Your task to perform on an android device: Show me popular games on the Play Store Image 0: 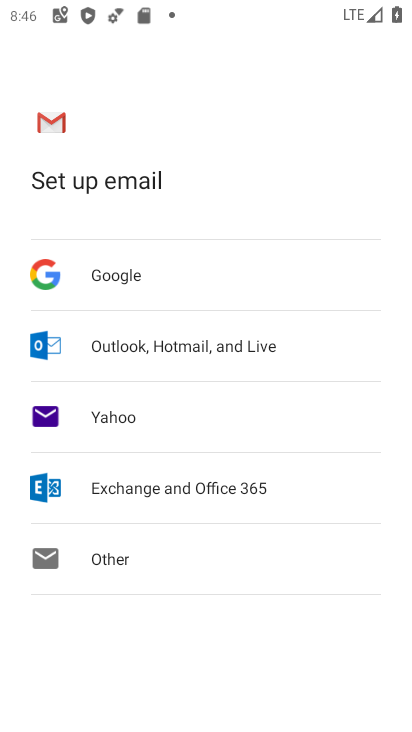
Step 0: press home button
Your task to perform on an android device: Show me popular games on the Play Store Image 1: 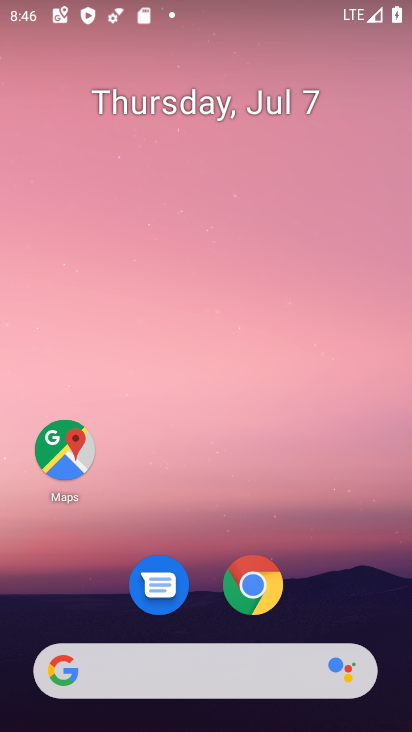
Step 1: drag from (276, 495) to (263, 53)
Your task to perform on an android device: Show me popular games on the Play Store Image 2: 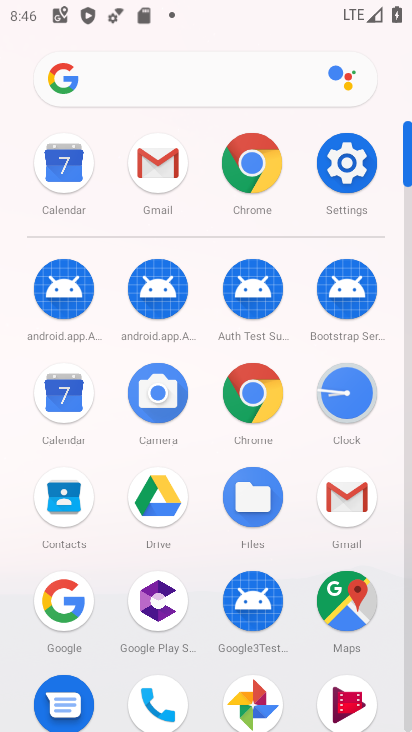
Step 2: drag from (207, 609) to (216, 350)
Your task to perform on an android device: Show me popular games on the Play Store Image 3: 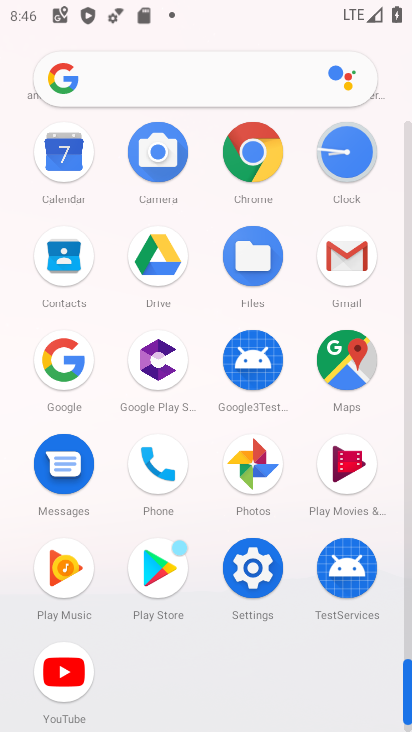
Step 3: click (155, 567)
Your task to perform on an android device: Show me popular games on the Play Store Image 4: 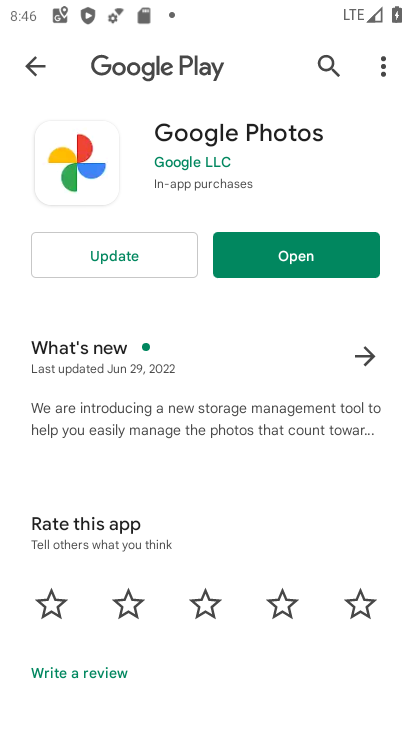
Step 4: click (34, 62)
Your task to perform on an android device: Show me popular games on the Play Store Image 5: 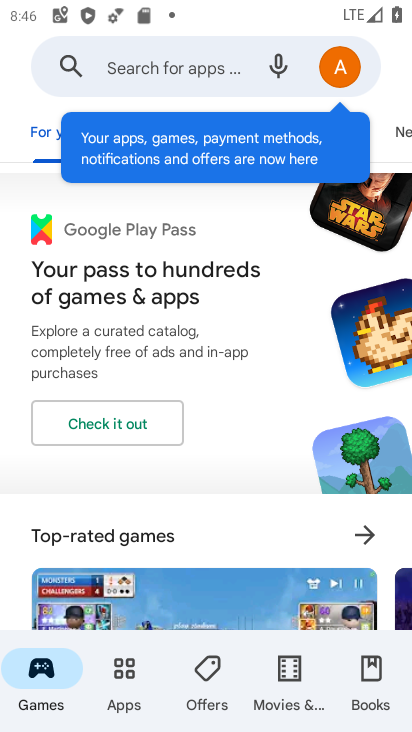
Step 5: click (308, 155)
Your task to perform on an android device: Show me popular games on the Play Store Image 6: 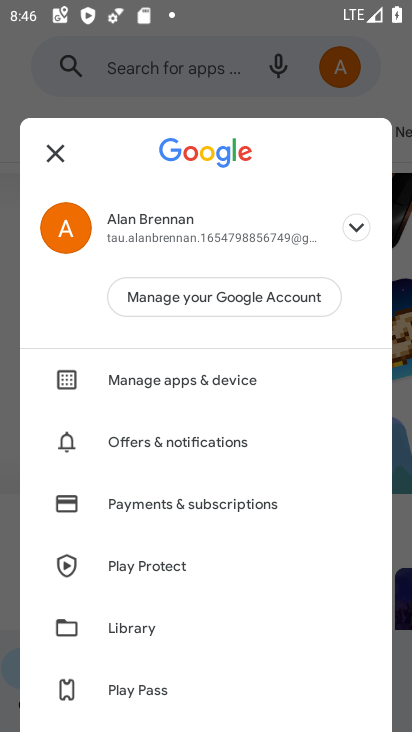
Step 6: click (54, 147)
Your task to perform on an android device: Show me popular games on the Play Store Image 7: 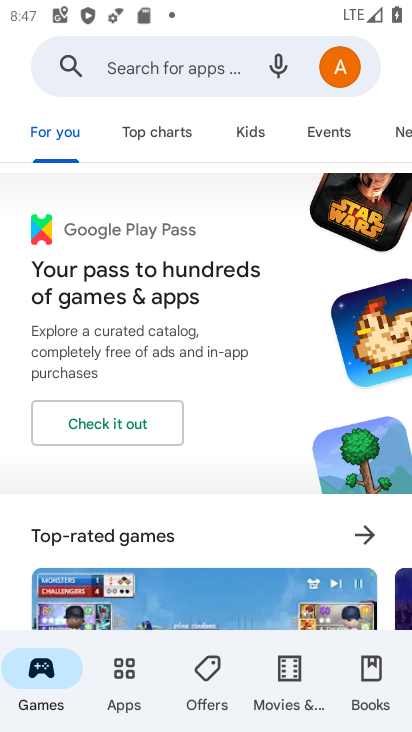
Step 7: drag from (263, 511) to (291, 88)
Your task to perform on an android device: Show me popular games on the Play Store Image 8: 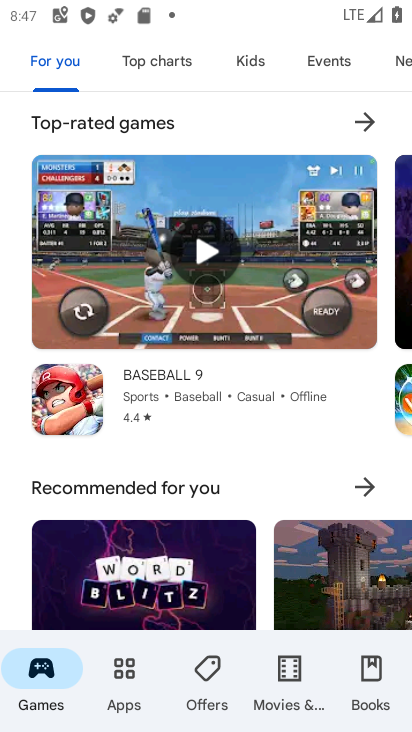
Step 8: drag from (280, 419) to (289, 112)
Your task to perform on an android device: Show me popular games on the Play Store Image 9: 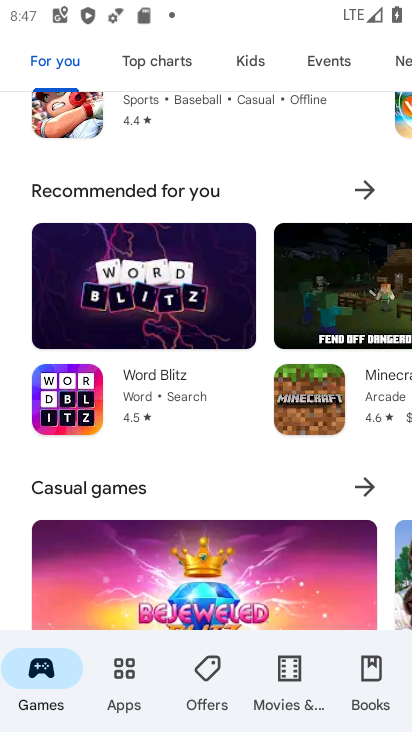
Step 9: drag from (300, 564) to (318, 202)
Your task to perform on an android device: Show me popular games on the Play Store Image 10: 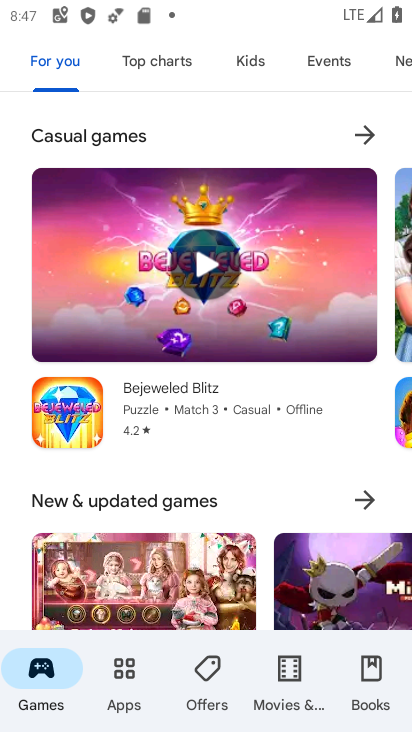
Step 10: drag from (288, 496) to (287, 184)
Your task to perform on an android device: Show me popular games on the Play Store Image 11: 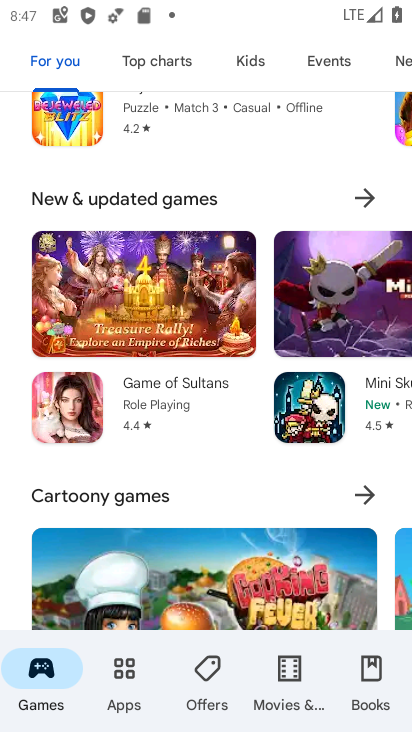
Step 11: drag from (283, 573) to (296, 197)
Your task to perform on an android device: Show me popular games on the Play Store Image 12: 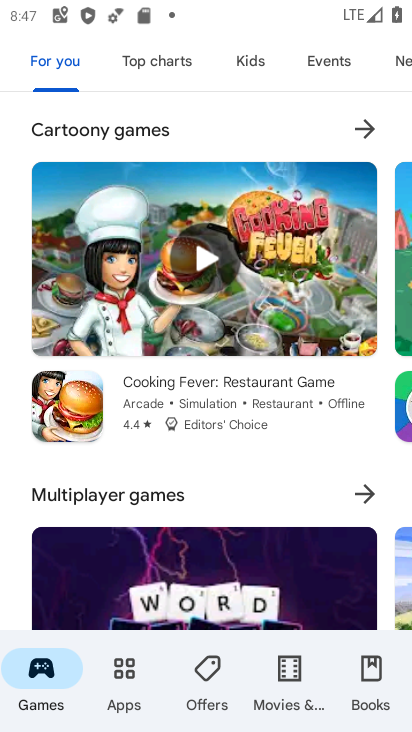
Step 12: drag from (248, 543) to (268, 186)
Your task to perform on an android device: Show me popular games on the Play Store Image 13: 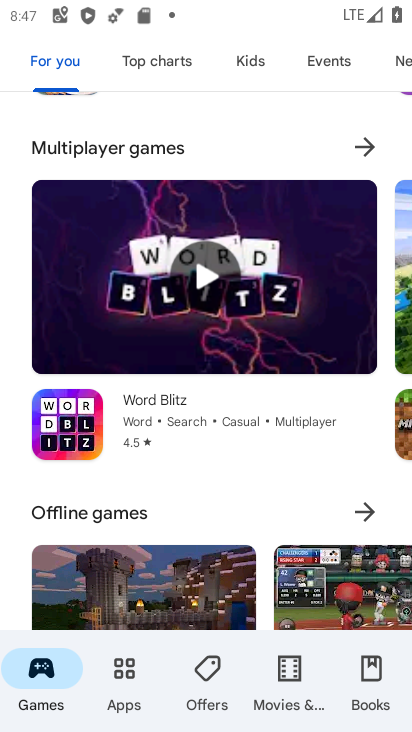
Step 13: drag from (272, 169) to (247, 552)
Your task to perform on an android device: Show me popular games on the Play Store Image 14: 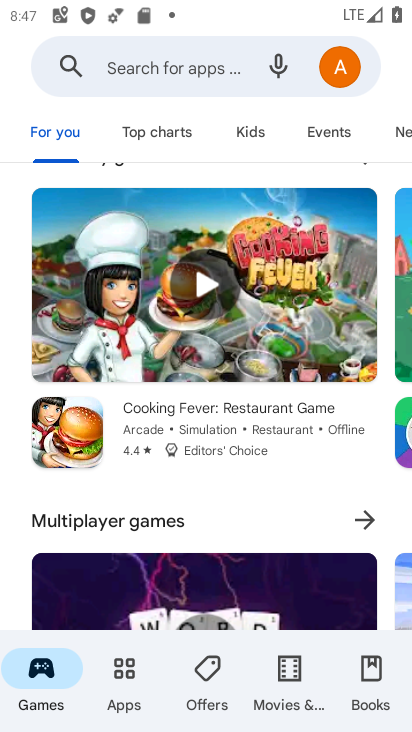
Step 14: drag from (274, 292) to (281, 676)
Your task to perform on an android device: Show me popular games on the Play Store Image 15: 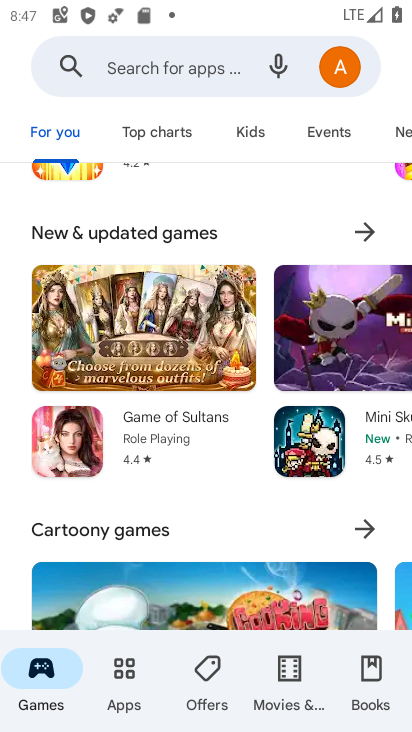
Step 15: drag from (283, 222) to (274, 610)
Your task to perform on an android device: Show me popular games on the Play Store Image 16: 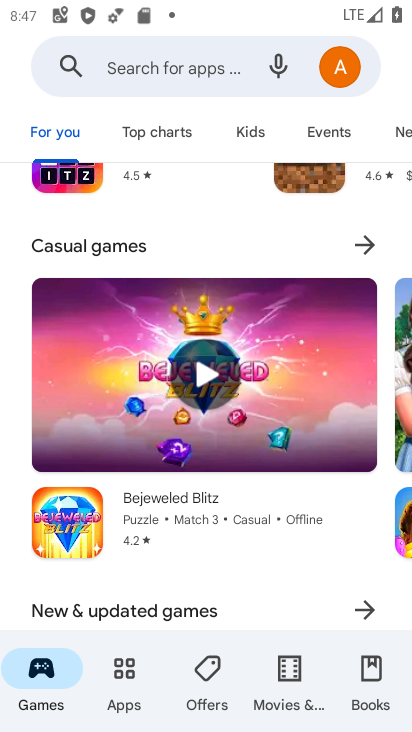
Step 16: drag from (244, 255) to (251, 646)
Your task to perform on an android device: Show me popular games on the Play Store Image 17: 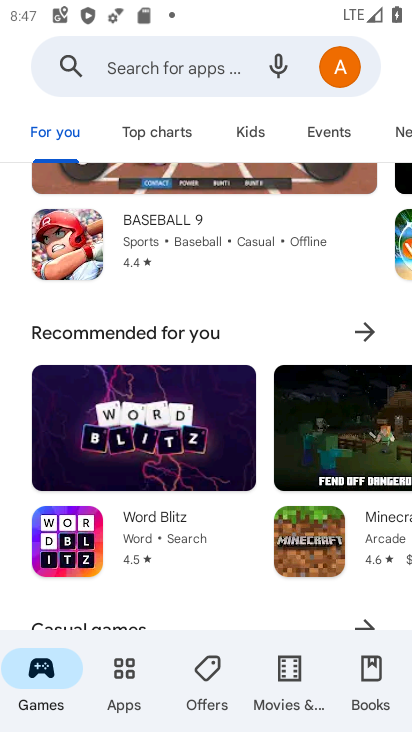
Step 17: drag from (251, 278) to (252, 649)
Your task to perform on an android device: Show me popular games on the Play Store Image 18: 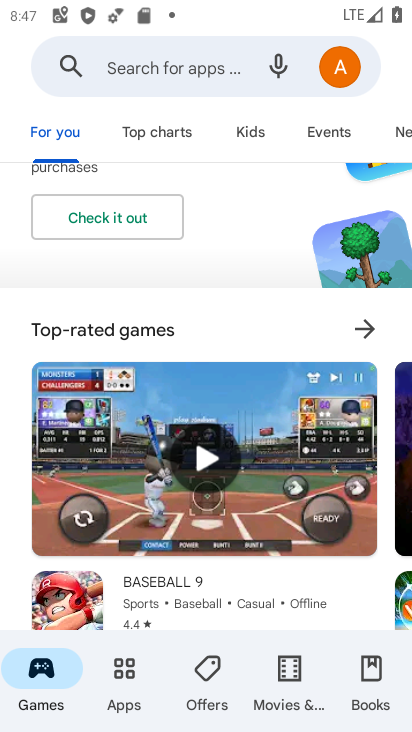
Step 18: click (367, 327)
Your task to perform on an android device: Show me popular games on the Play Store Image 19: 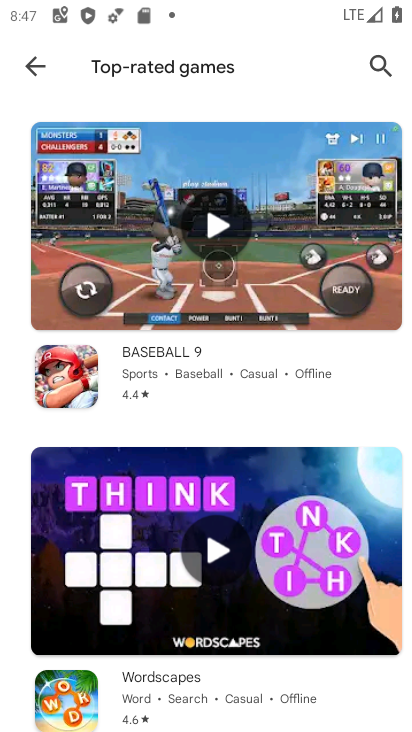
Step 19: task complete